Your task to perform on an android device: Go to Android settings Image 0: 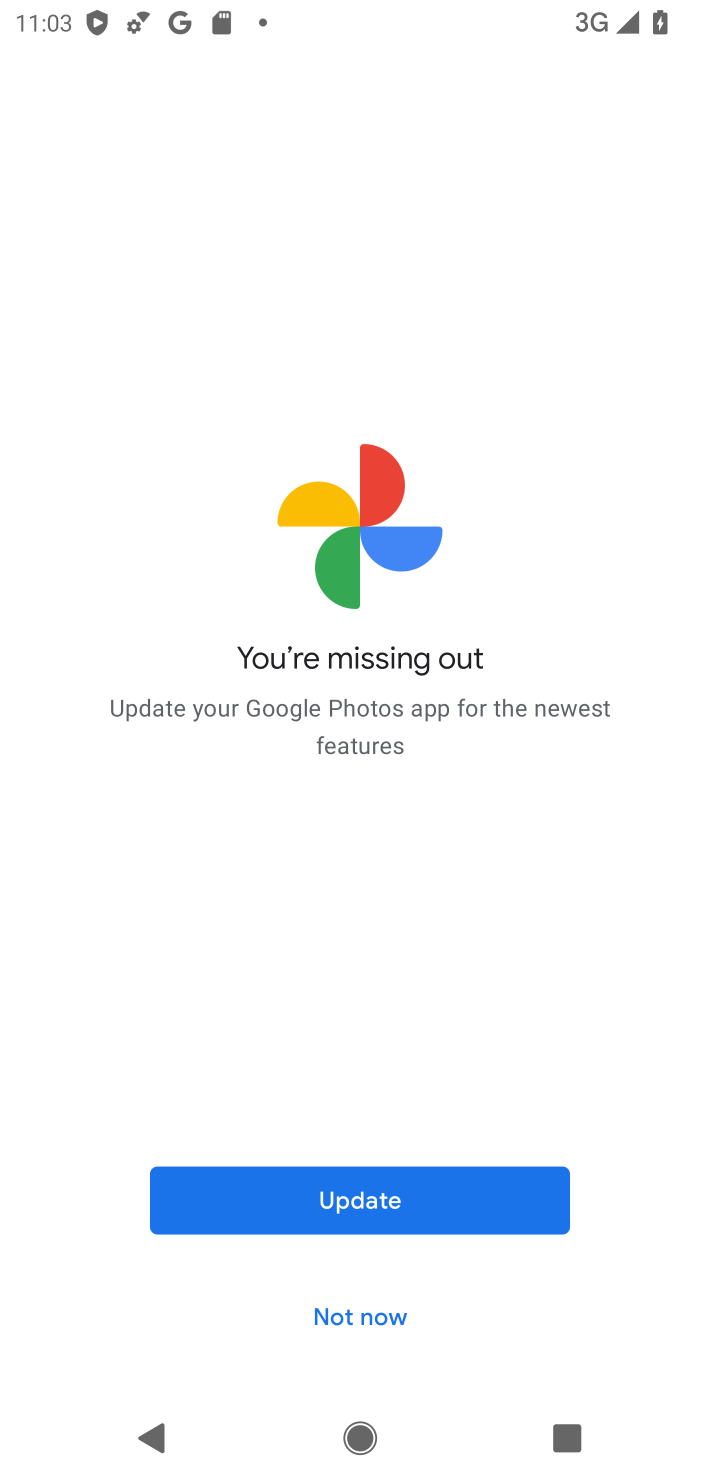
Step 0: press home button
Your task to perform on an android device: Go to Android settings Image 1: 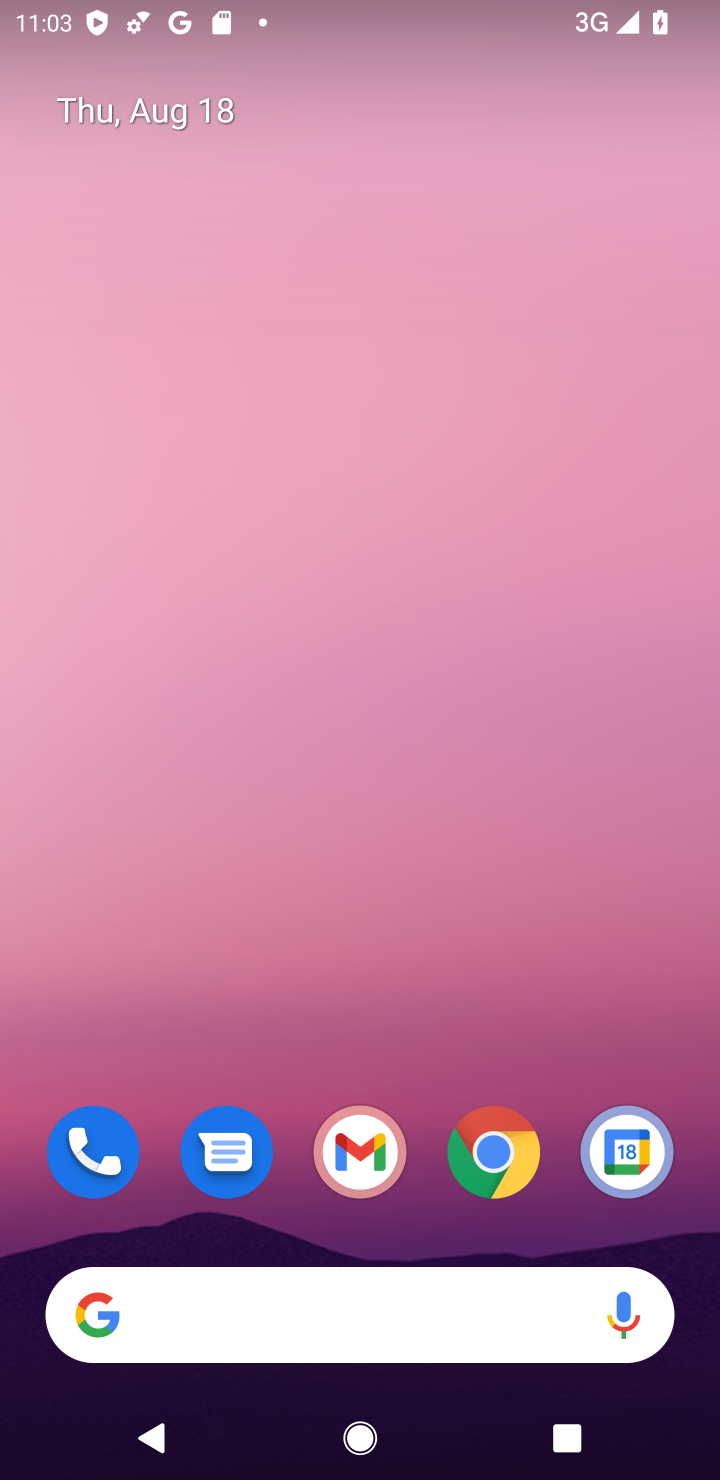
Step 1: drag from (372, 1045) to (406, 5)
Your task to perform on an android device: Go to Android settings Image 2: 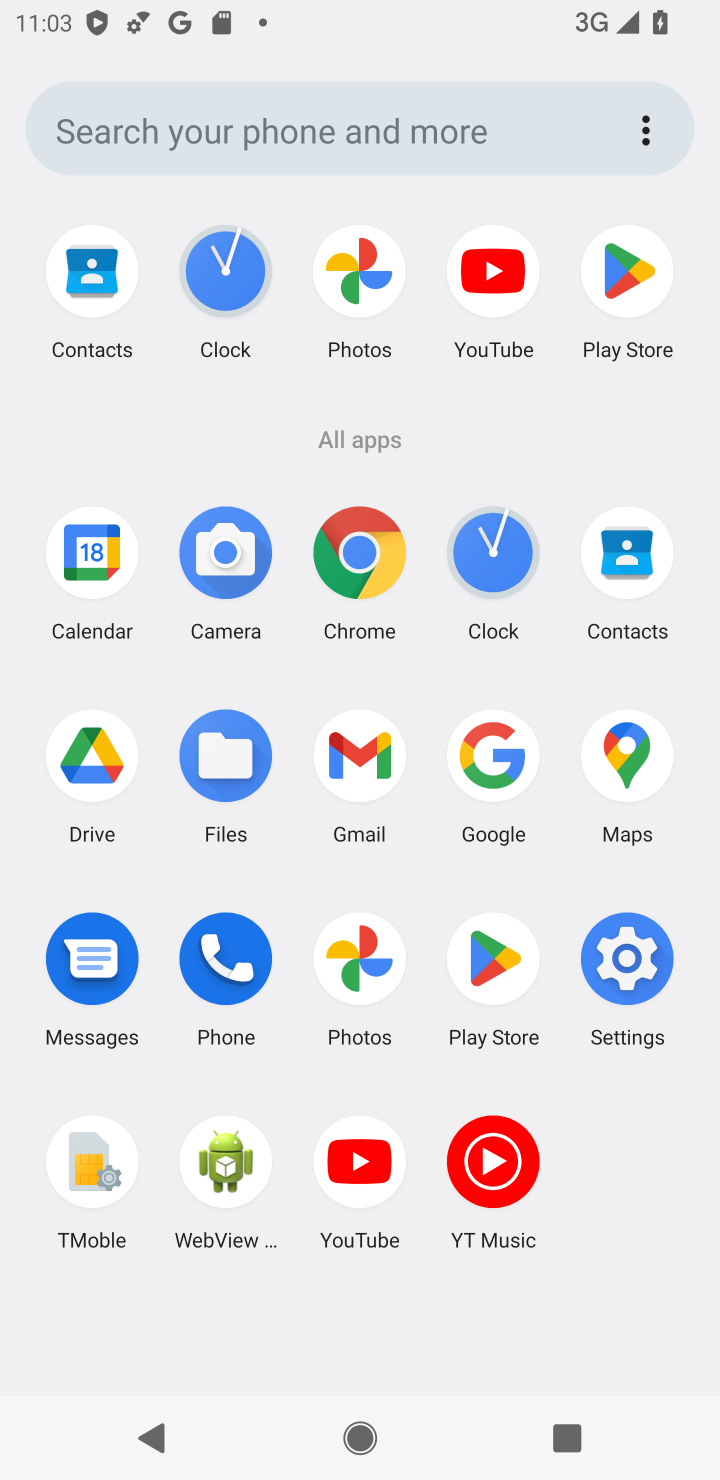
Step 2: click (628, 949)
Your task to perform on an android device: Go to Android settings Image 3: 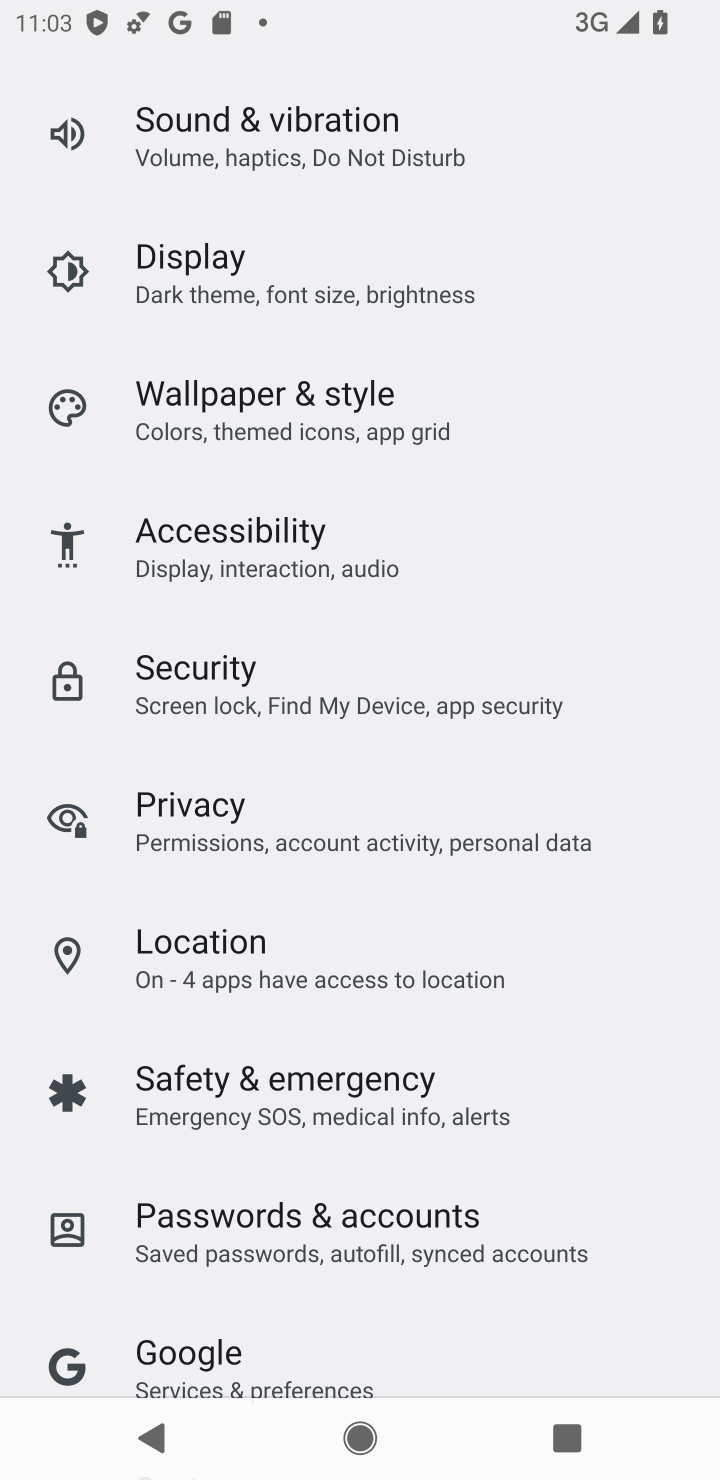
Step 3: drag from (403, 1160) to (348, 85)
Your task to perform on an android device: Go to Android settings Image 4: 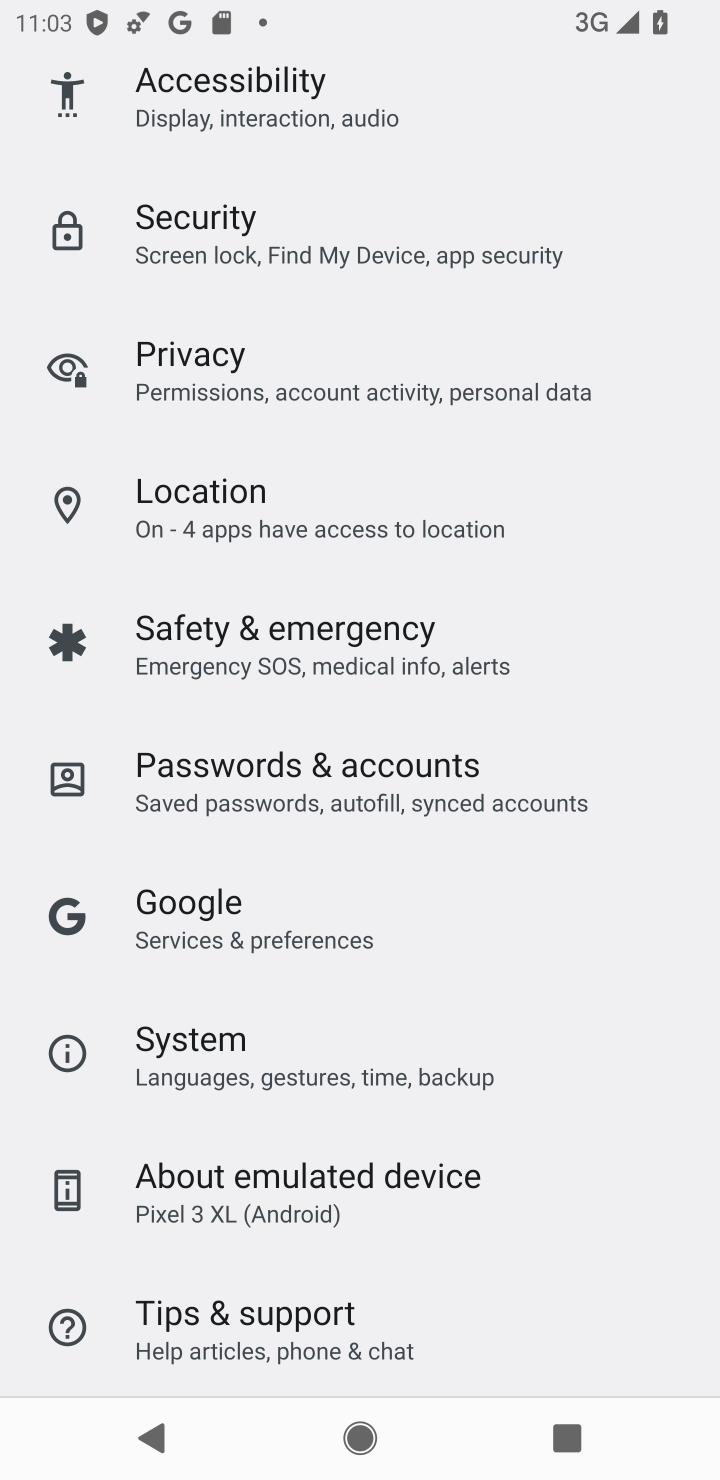
Step 4: click (392, 1164)
Your task to perform on an android device: Go to Android settings Image 5: 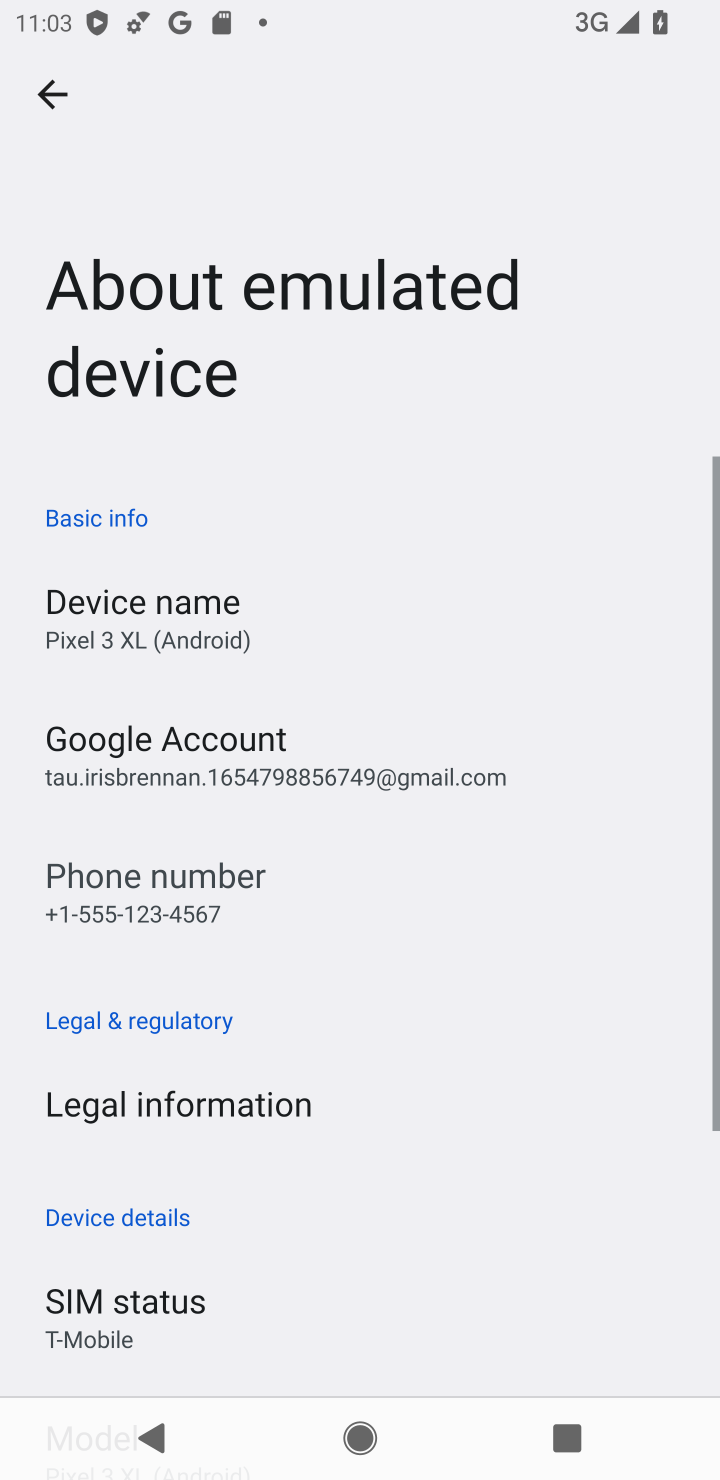
Step 5: task complete